Your task to perform on an android device: turn off airplane mode Image 0: 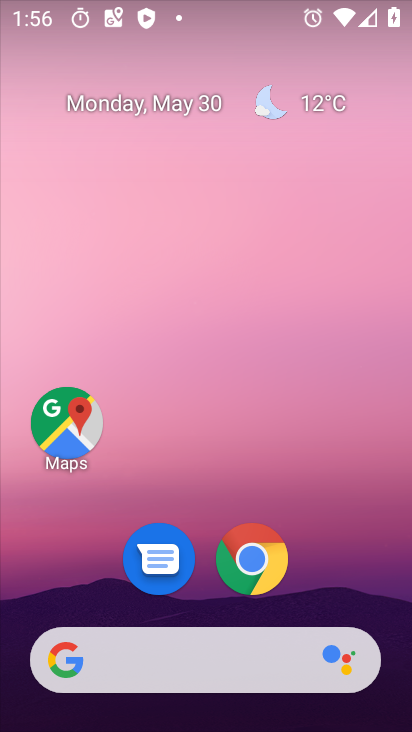
Step 0: drag from (361, 7) to (311, 455)
Your task to perform on an android device: turn off airplane mode Image 1: 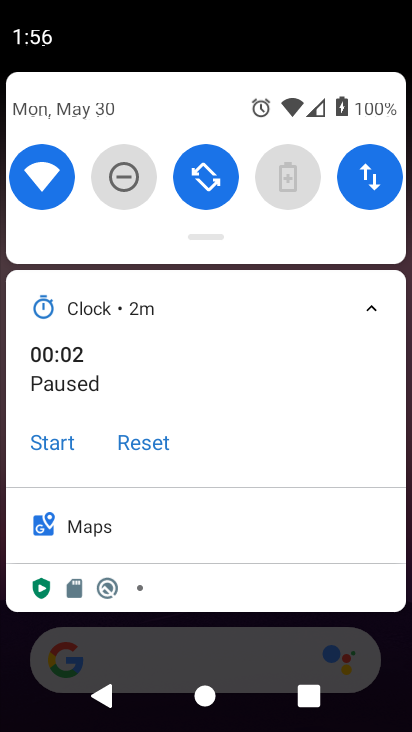
Step 1: task complete